Your task to perform on an android device: Open ESPN.com Image 0: 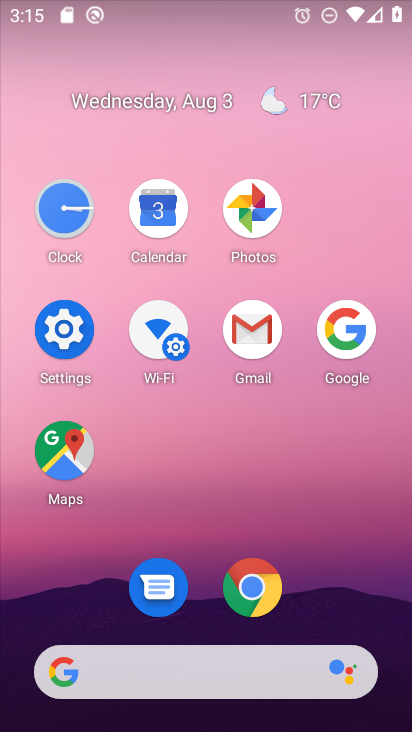
Step 0: click (256, 596)
Your task to perform on an android device: Open ESPN.com Image 1: 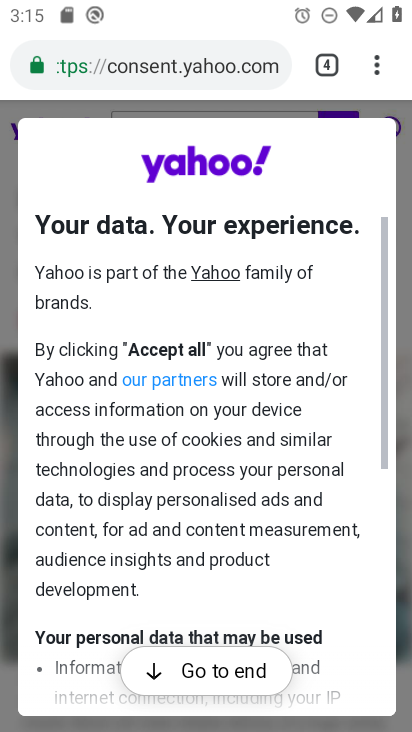
Step 1: click (329, 69)
Your task to perform on an android device: Open ESPN.com Image 2: 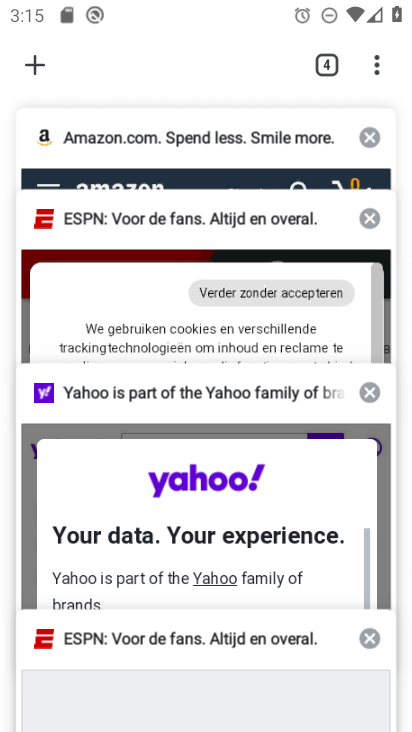
Step 2: click (136, 261)
Your task to perform on an android device: Open ESPN.com Image 3: 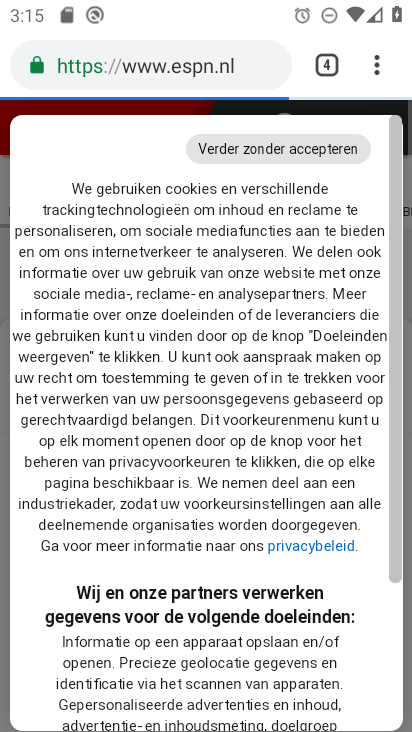
Step 3: task complete